Your task to perform on an android device: Search for "beats solo 3" on newegg, select the first entry, and add it to the cart. Image 0: 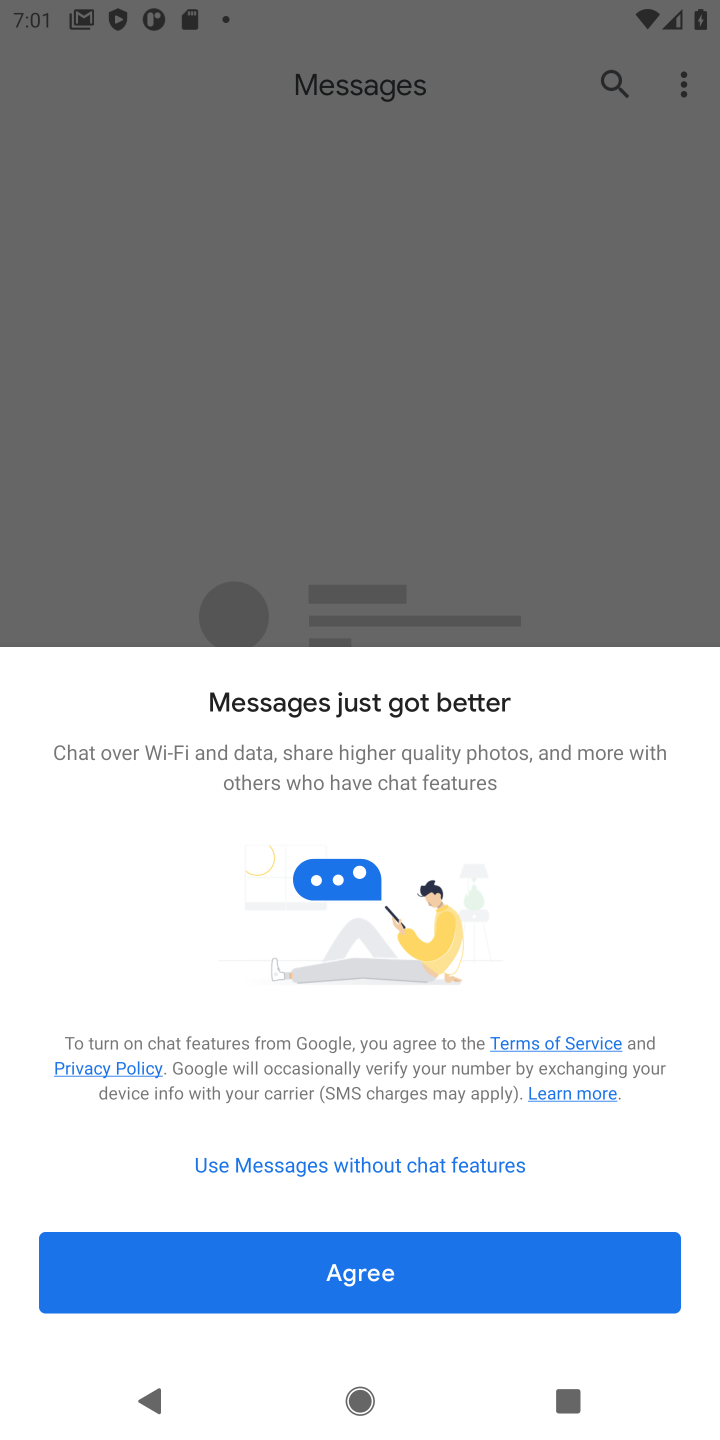
Step 0: press home button
Your task to perform on an android device: Search for "beats solo 3" on newegg, select the first entry, and add it to the cart. Image 1: 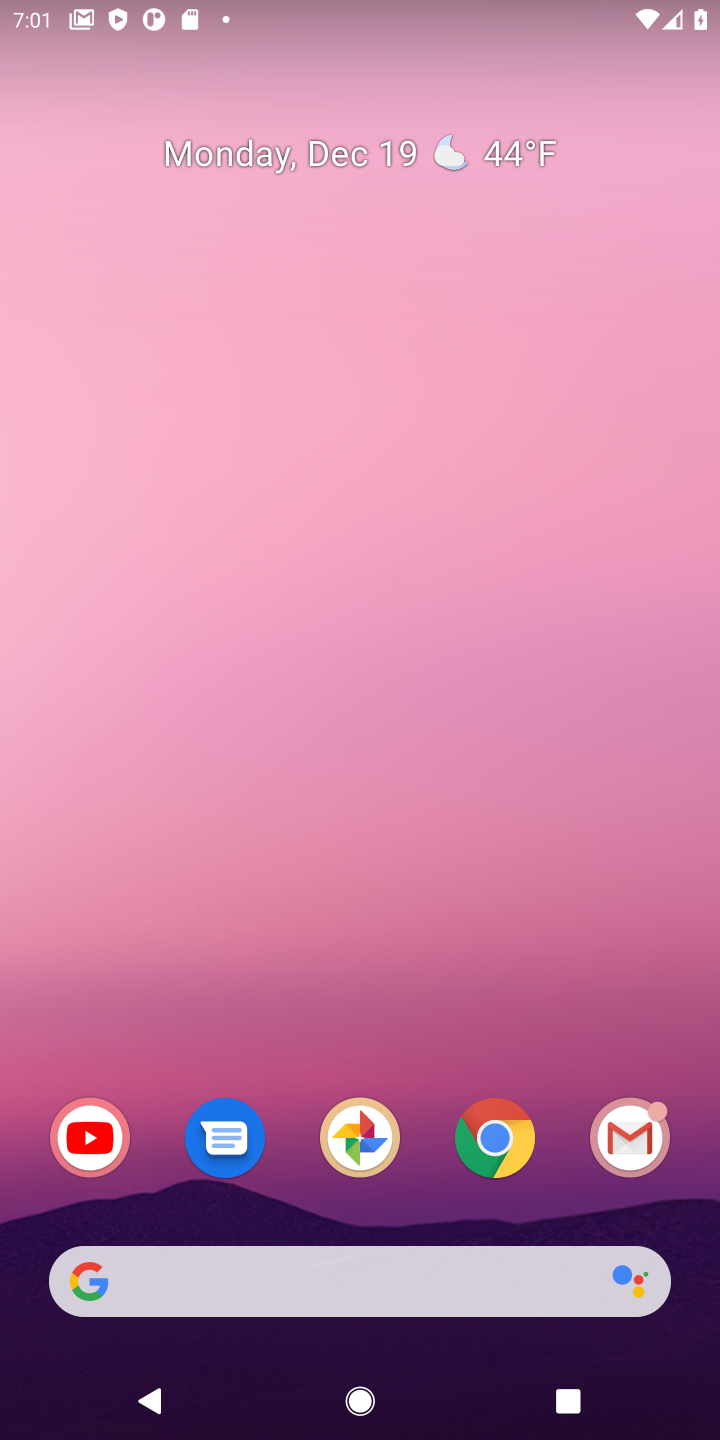
Step 1: click (492, 1151)
Your task to perform on an android device: Search for "beats solo 3" on newegg, select the first entry, and add it to the cart. Image 2: 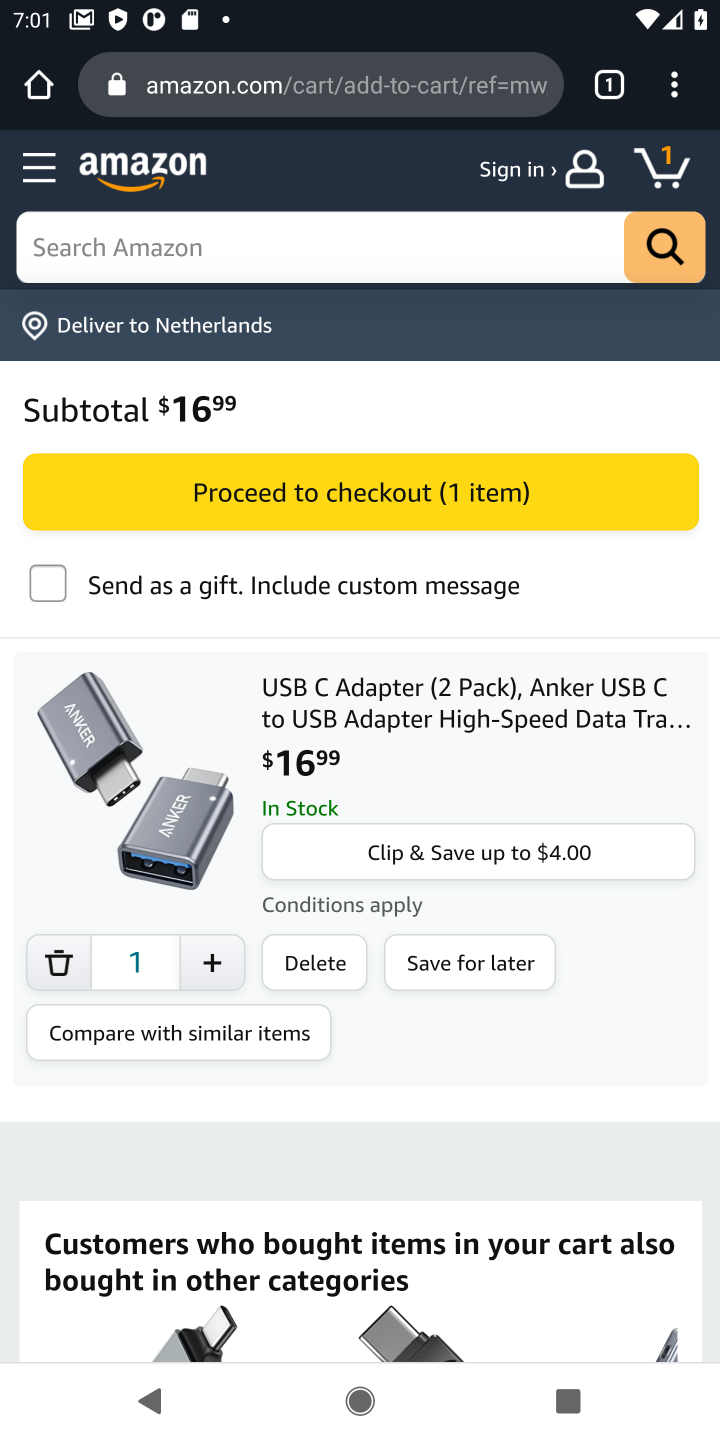
Step 2: click (329, 77)
Your task to perform on an android device: Search for "beats solo 3" on newegg, select the first entry, and add it to the cart. Image 3: 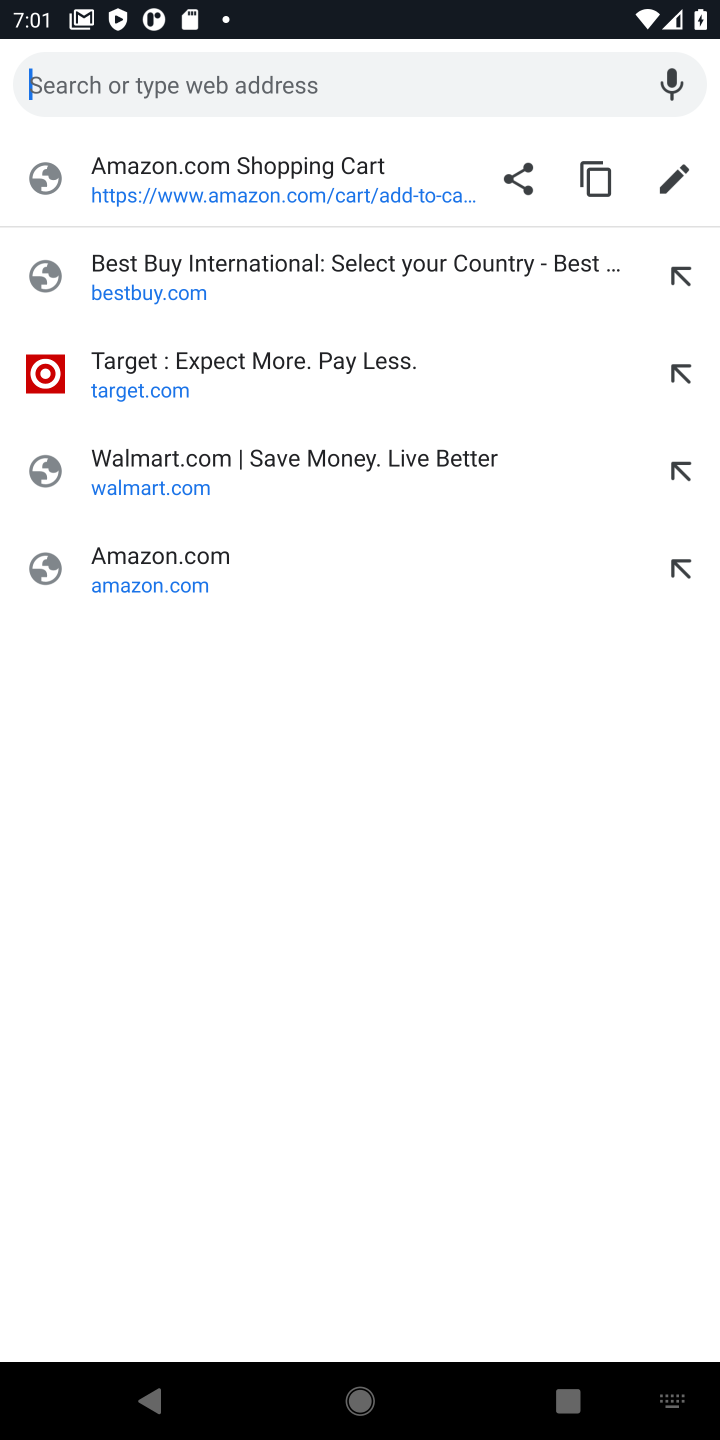
Step 3: type "NEWEGG"
Your task to perform on an android device: Search for "beats solo 3" on newegg, select the first entry, and add it to the cart. Image 4: 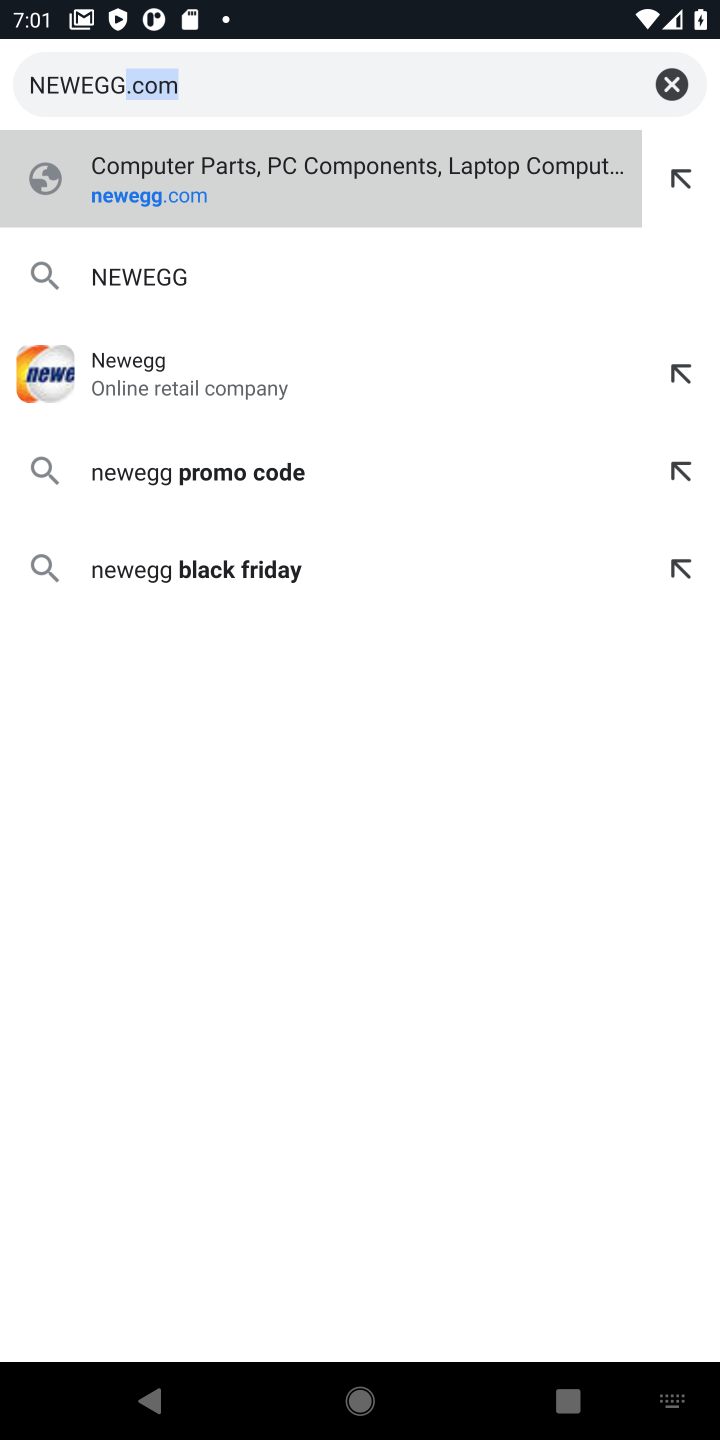
Step 4: click (187, 181)
Your task to perform on an android device: Search for "beats solo 3" on newegg, select the first entry, and add it to the cart. Image 5: 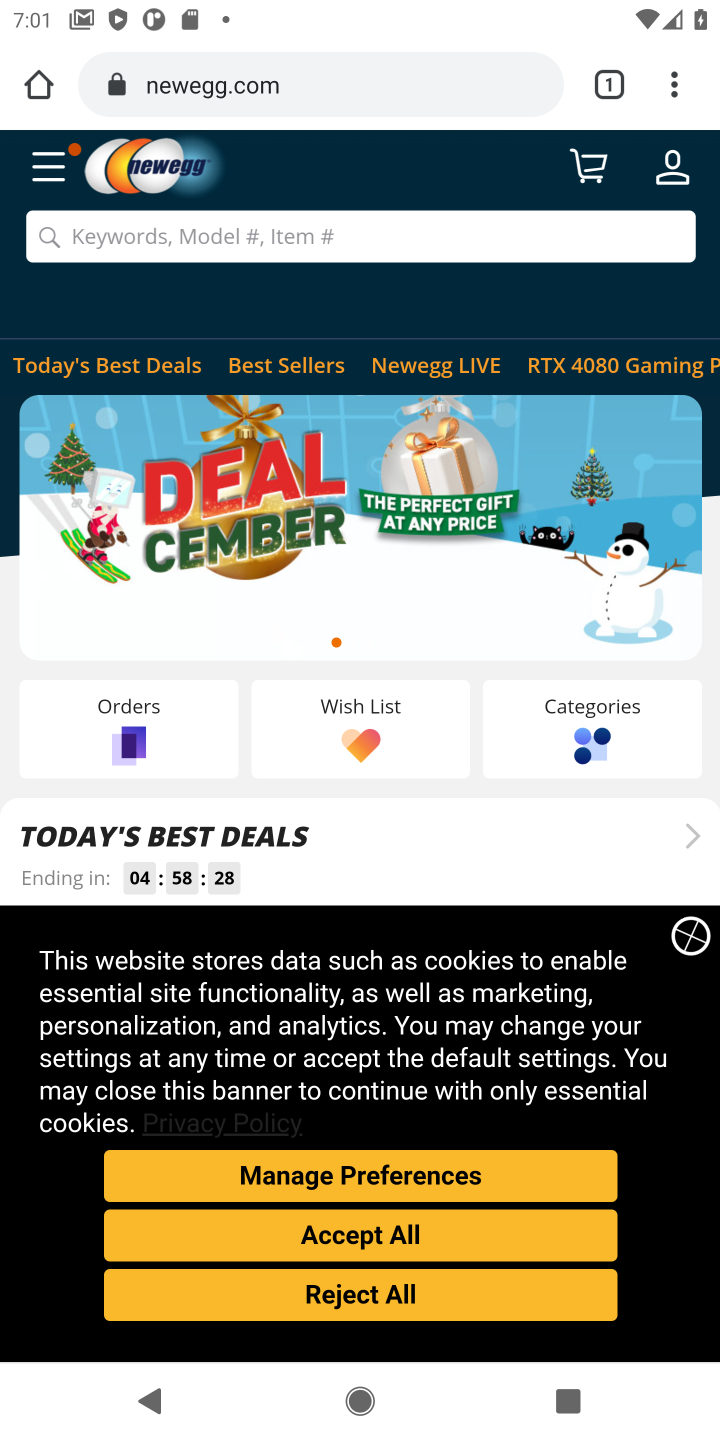
Step 5: click (295, 229)
Your task to perform on an android device: Search for "beats solo 3" on newegg, select the first entry, and add it to the cart. Image 6: 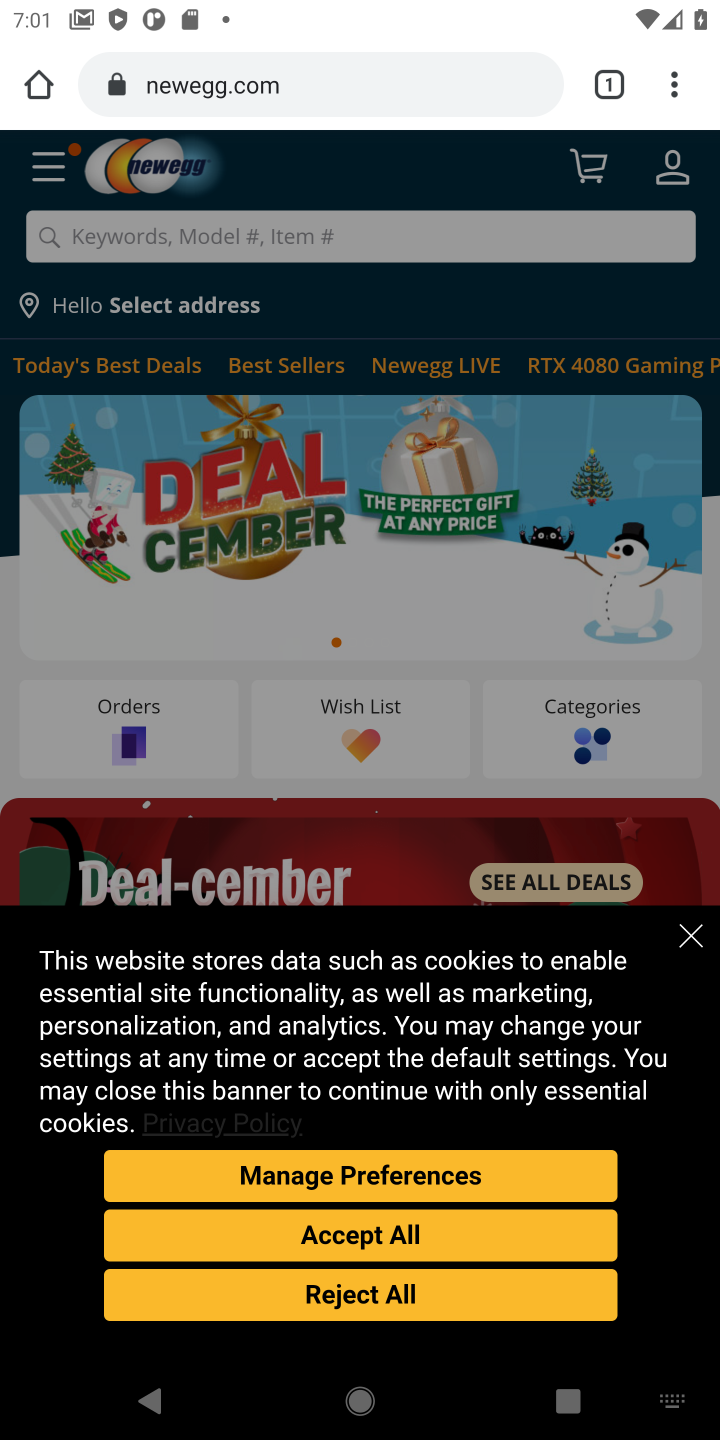
Step 6: click (688, 938)
Your task to perform on an android device: Search for "beats solo 3" on newegg, select the first entry, and add it to the cart. Image 7: 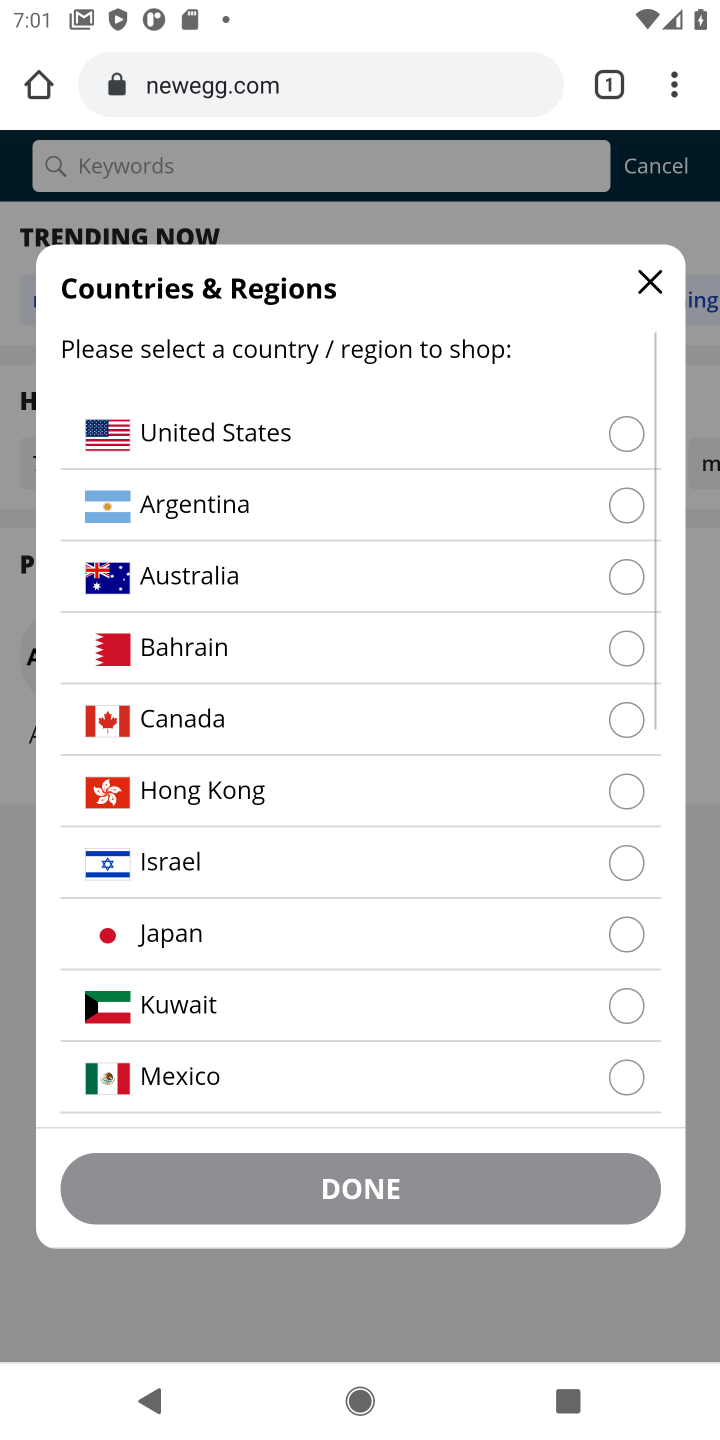
Step 7: click (439, 443)
Your task to perform on an android device: Search for "beats solo 3" on newegg, select the first entry, and add it to the cart. Image 8: 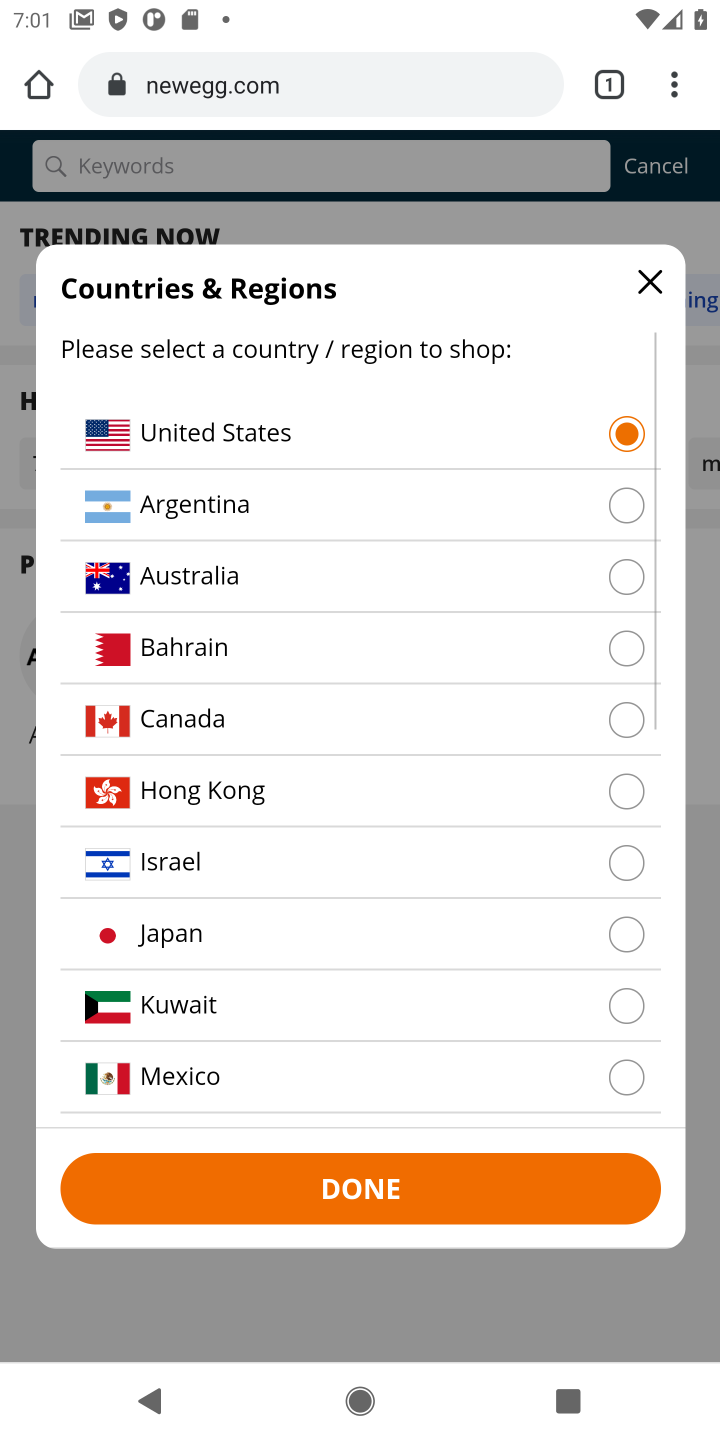
Step 8: click (445, 1201)
Your task to perform on an android device: Search for "beats solo 3" on newegg, select the first entry, and add it to the cart. Image 9: 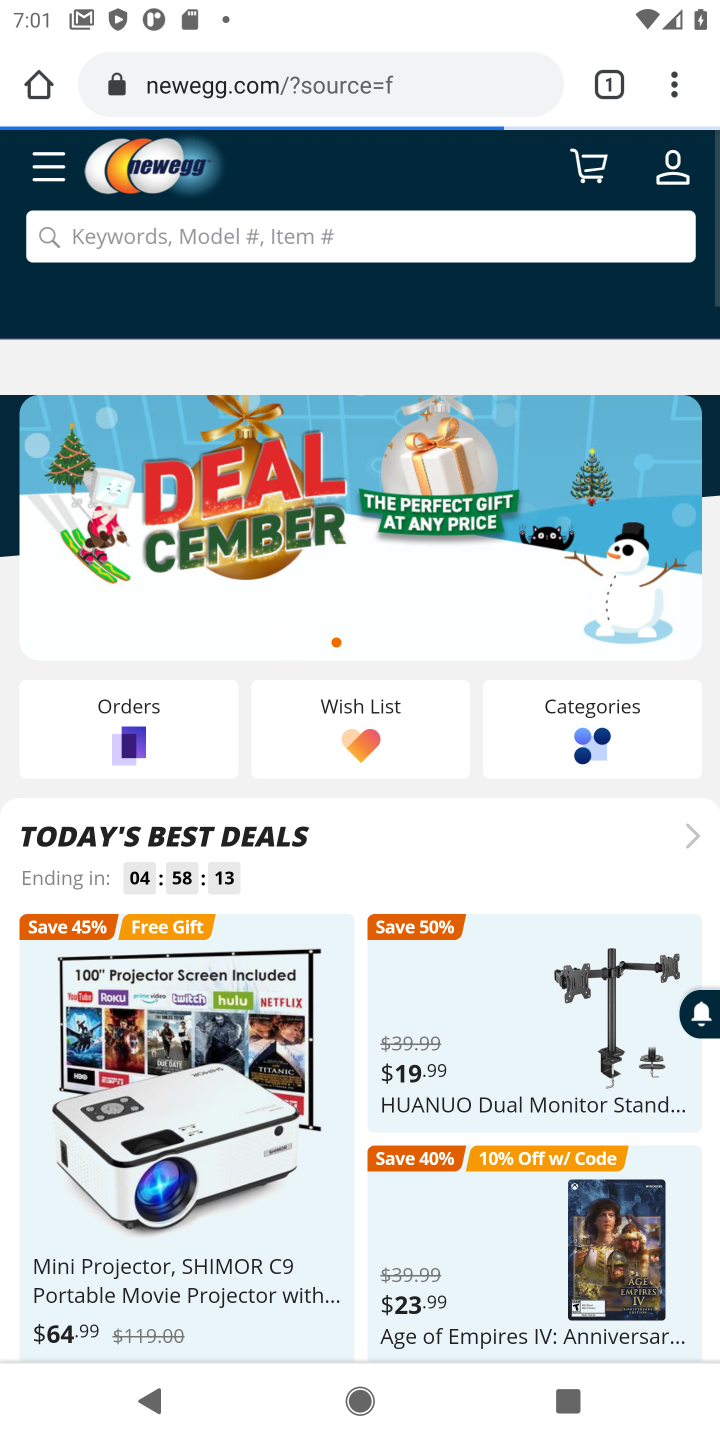
Step 9: click (363, 170)
Your task to perform on an android device: Search for "beats solo 3" on newegg, select the first entry, and add it to the cart. Image 10: 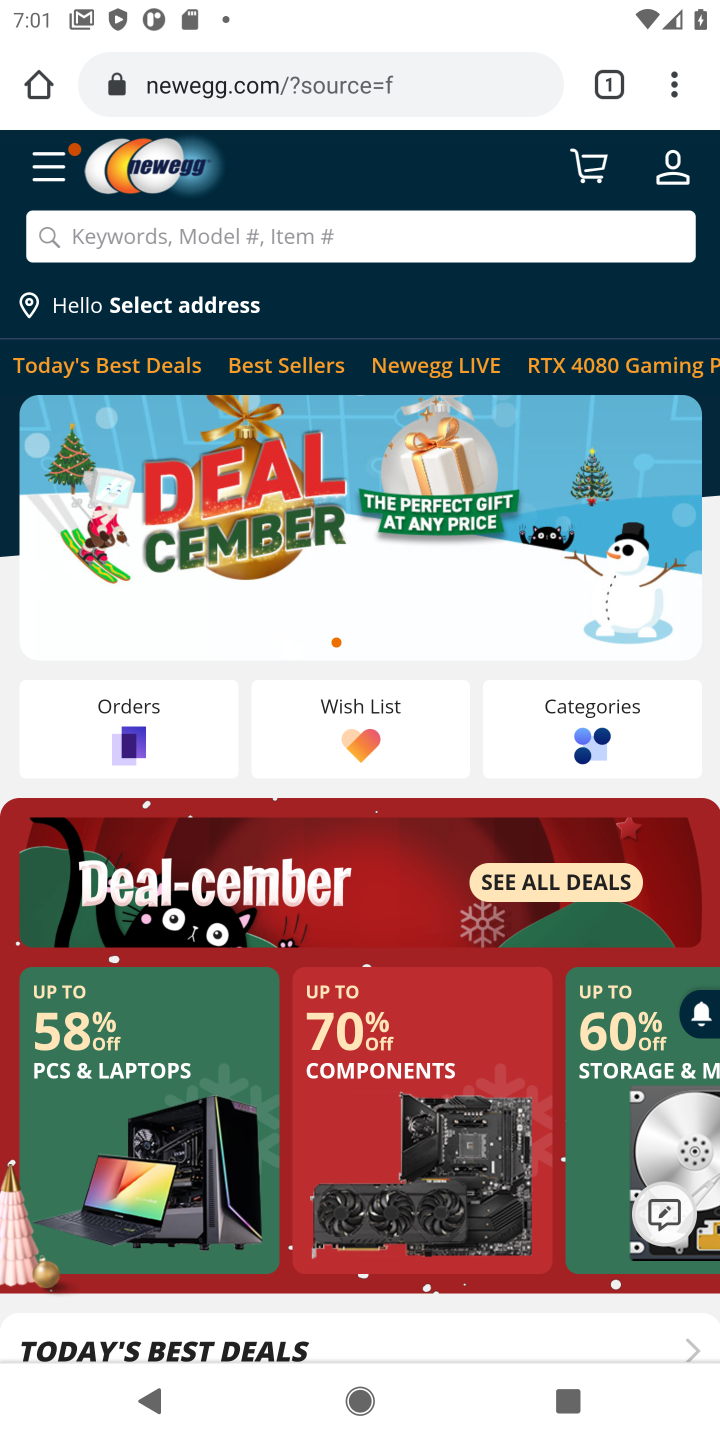
Step 10: click (335, 229)
Your task to perform on an android device: Search for "beats solo 3" on newegg, select the first entry, and add it to the cart. Image 11: 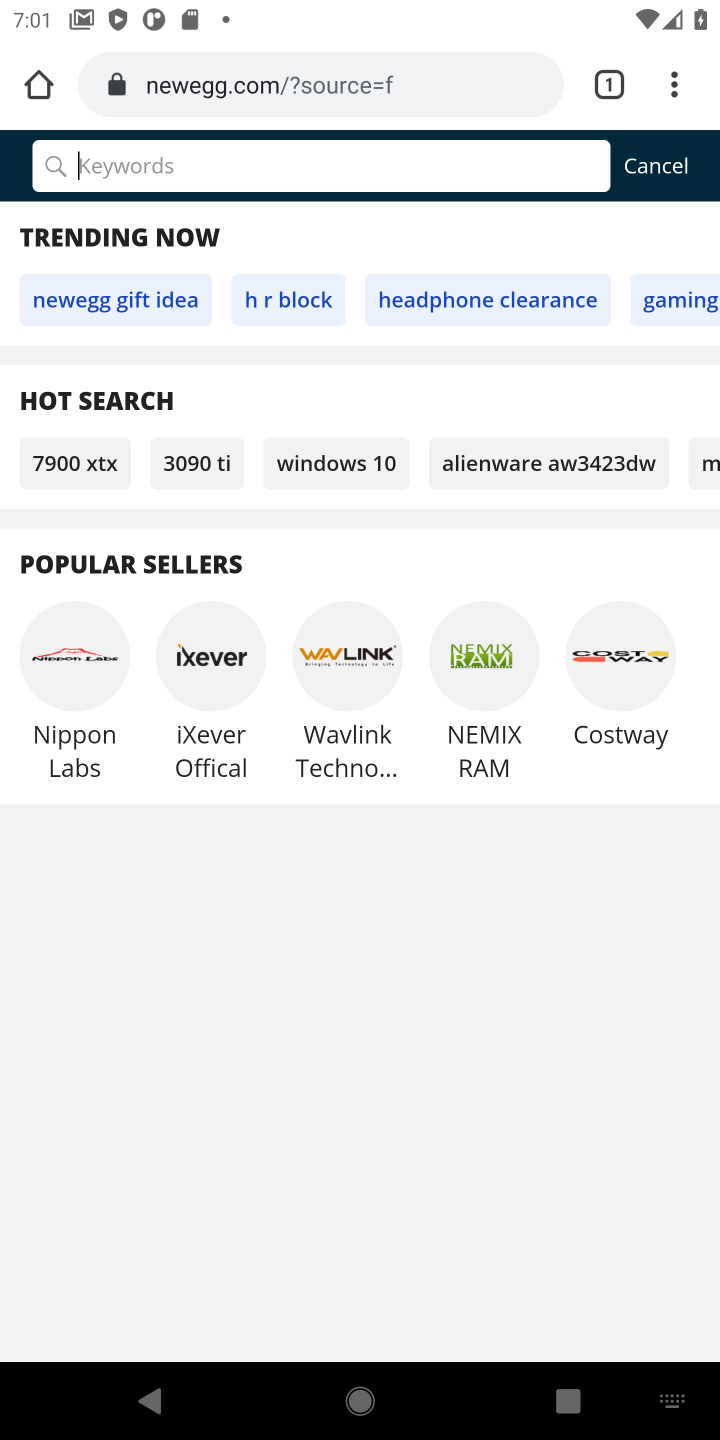
Step 11: type "BEATS SOLO 3"
Your task to perform on an android device: Search for "beats solo 3" on newegg, select the first entry, and add it to the cart. Image 12: 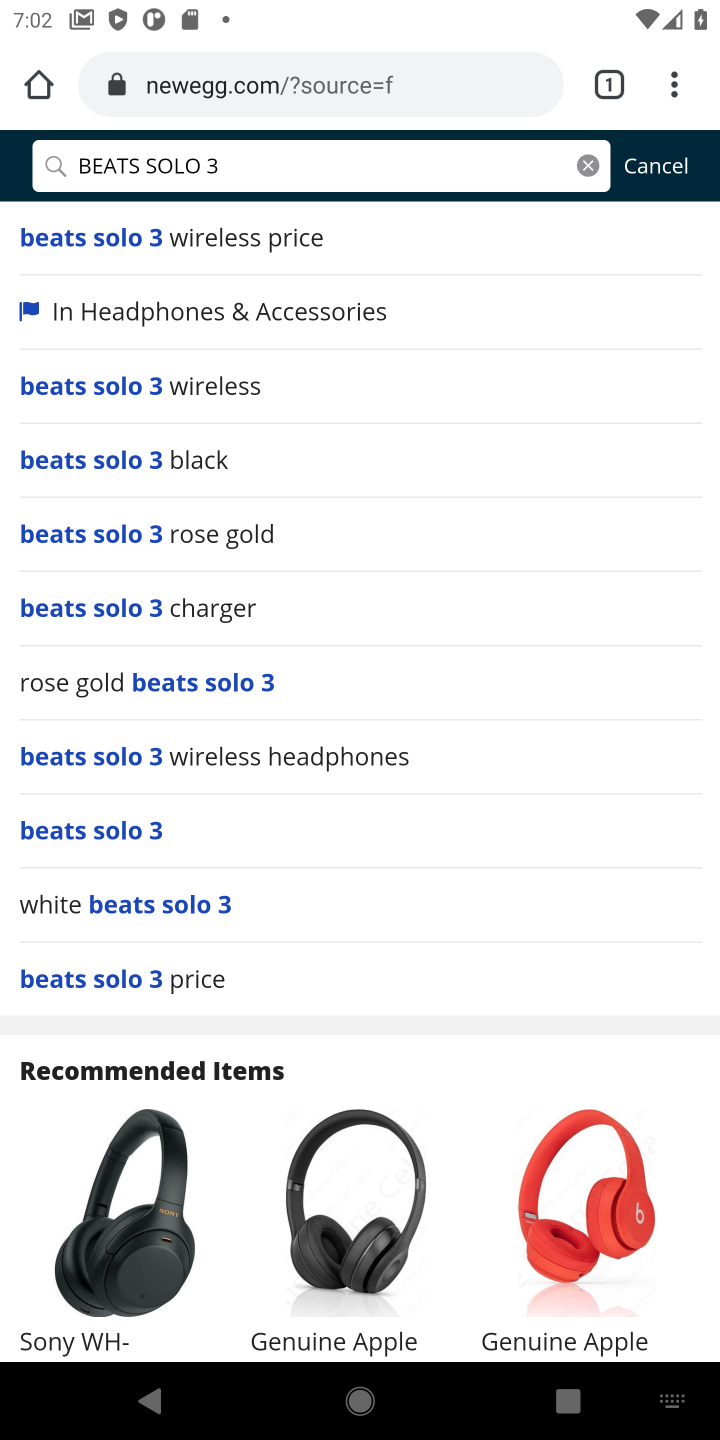
Step 12: click (153, 249)
Your task to perform on an android device: Search for "beats solo 3" on newegg, select the first entry, and add it to the cart. Image 13: 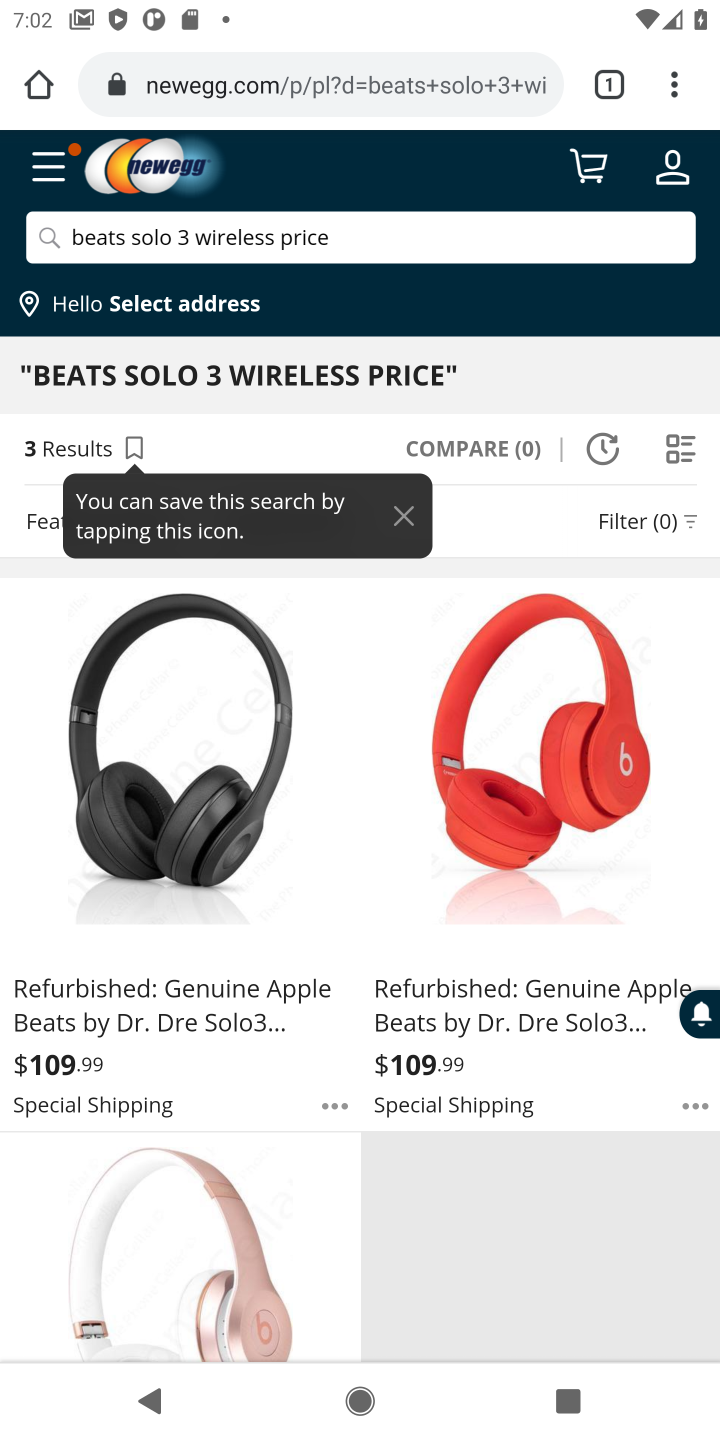
Step 13: click (190, 744)
Your task to perform on an android device: Search for "beats solo 3" on newegg, select the first entry, and add it to the cart. Image 14: 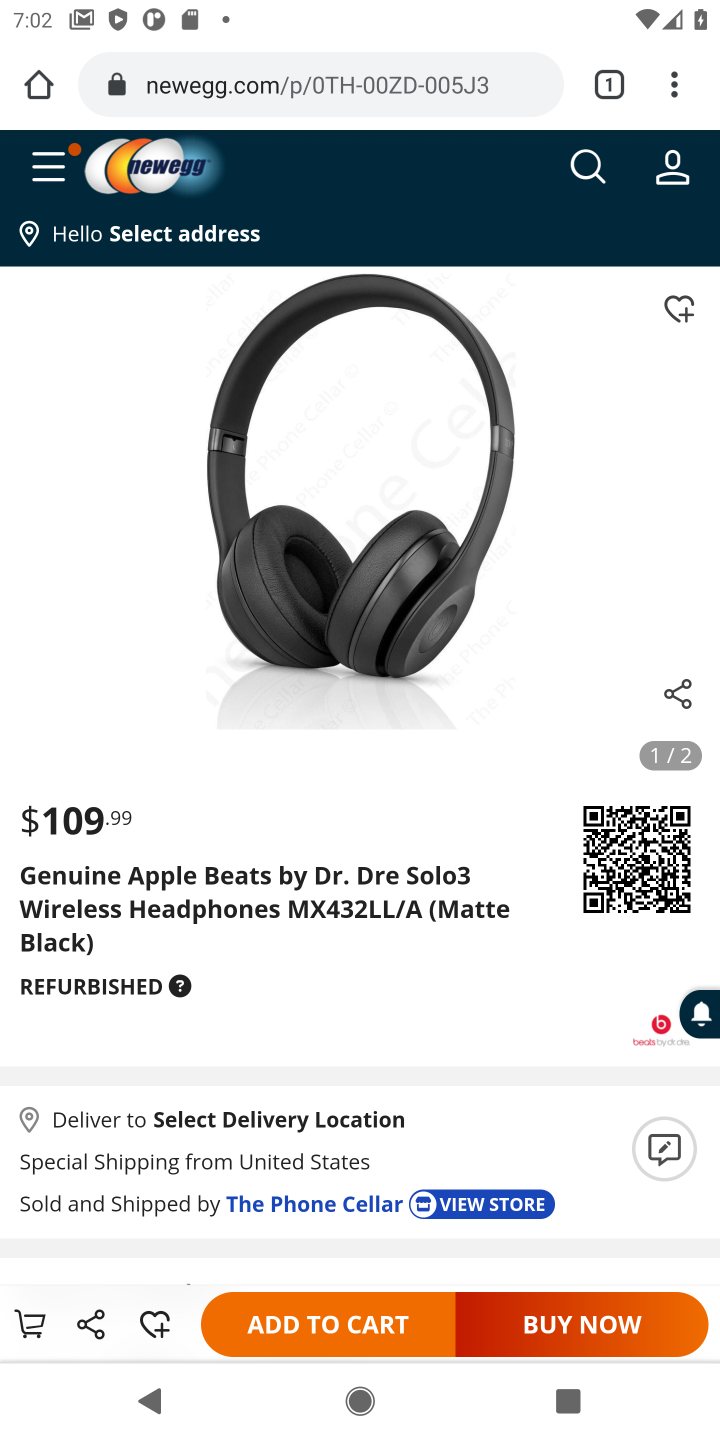
Step 14: click (318, 1323)
Your task to perform on an android device: Search for "beats solo 3" on newegg, select the first entry, and add it to the cart. Image 15: 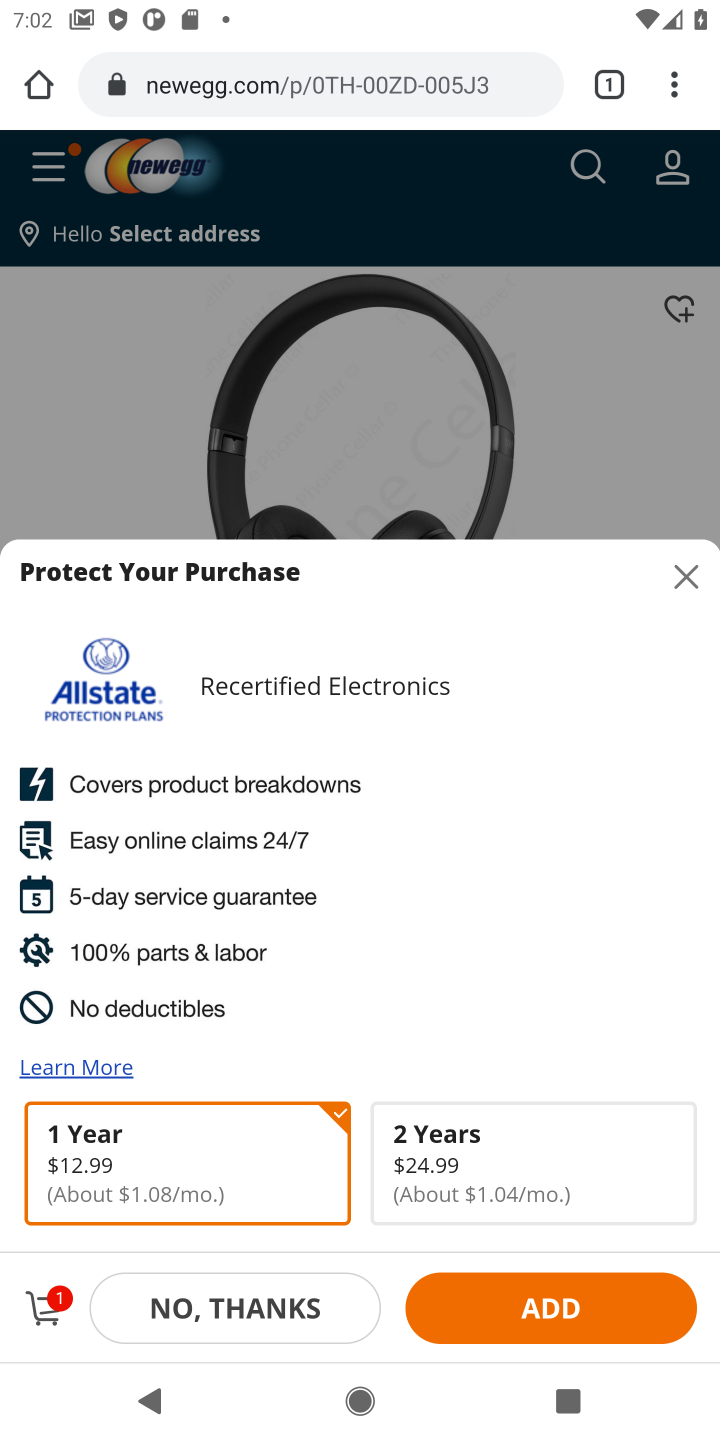
Step 15: click (50, 1306)
Your task to perform on an android device: Search for "beats solo 3" on newegg, select the first entry, and add it to the cart. Image 16: 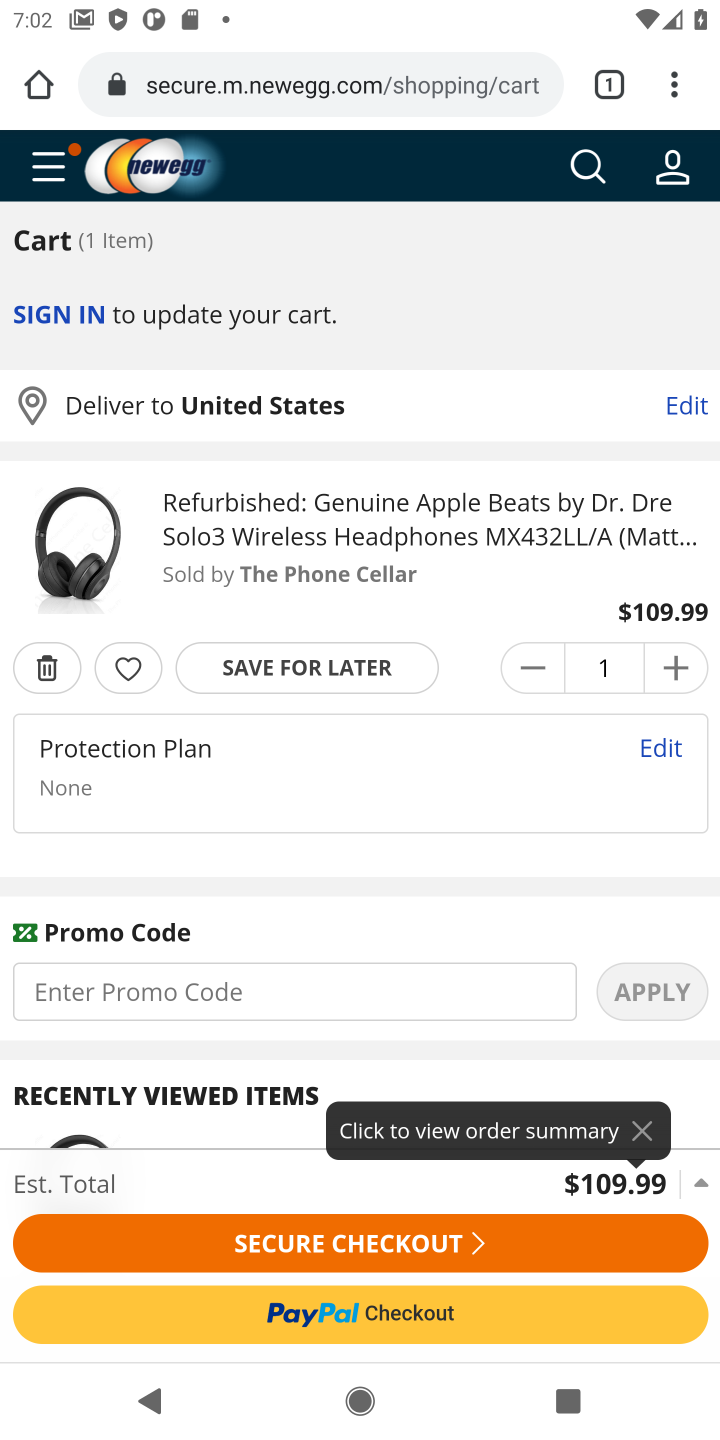
Step 16: click (387, 1246)
Your task to perform on an android device: Search for "beats solo 3" on newegg, select the first entry, and add it to the cart. Image 17: 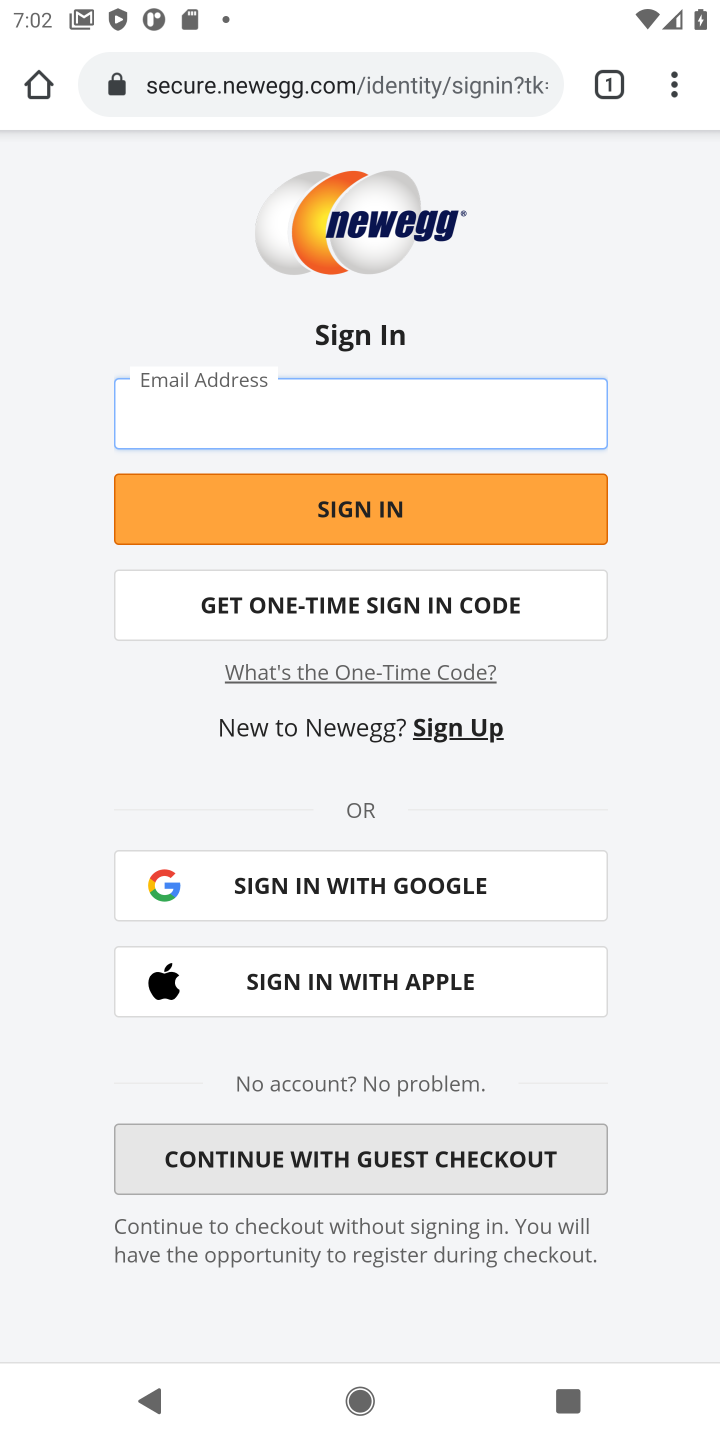
Step 17: task complete